Your task to perform on an android device: turn on improve location accuracy Image 0: 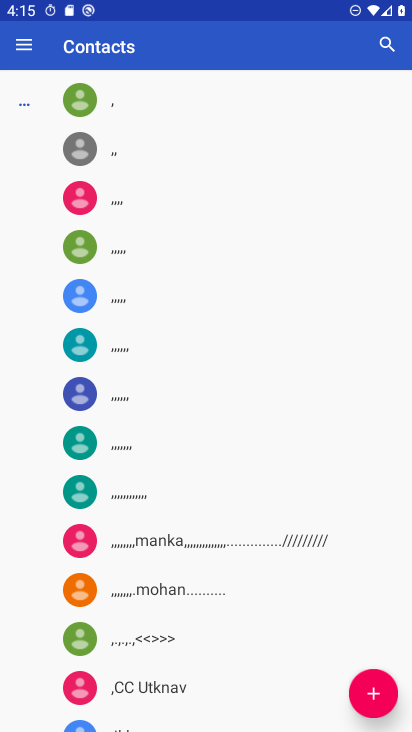
Step 0: press home button
Your task to perform on an android device: turn on improve location accuracy Image 1: 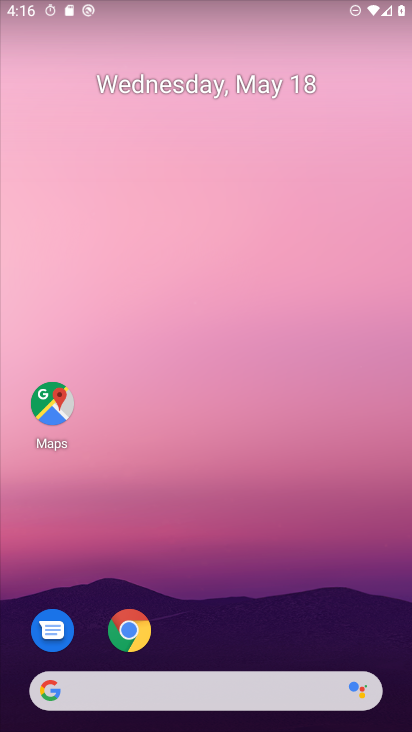
Step 1: drag from (221, 652) to (237, 60)
Your task to perform on an android device: turn on improve location accuracy Image 2: 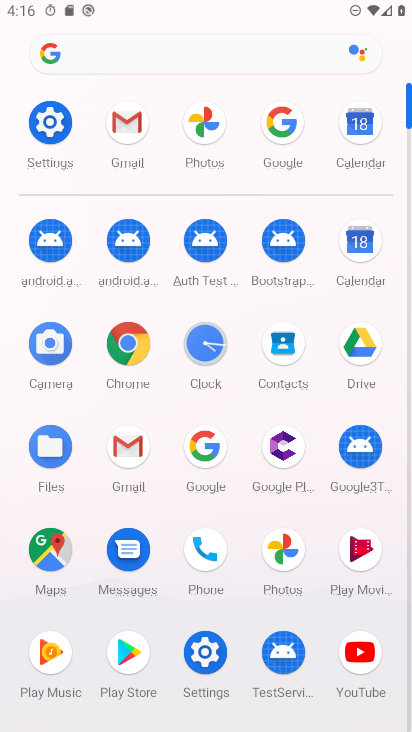
Step 2: click (201, 644)
Your task to perform on an android device: turn on improve location accuracy Image 3: 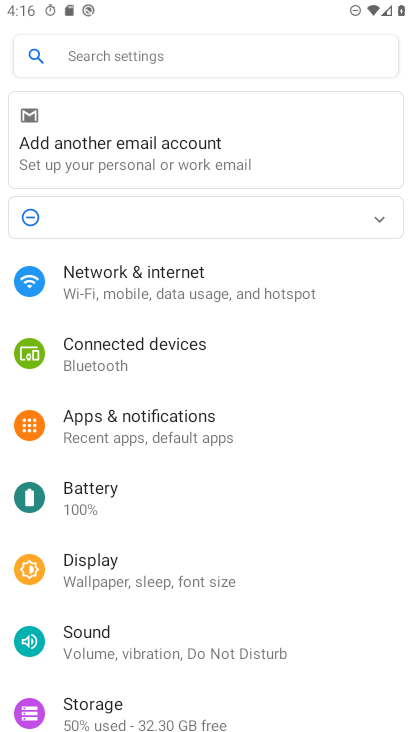
Step 3: drag from (160, 698) to (171, 245)
Your task to perform on an android device: turn on improve location accuracy Image 4: 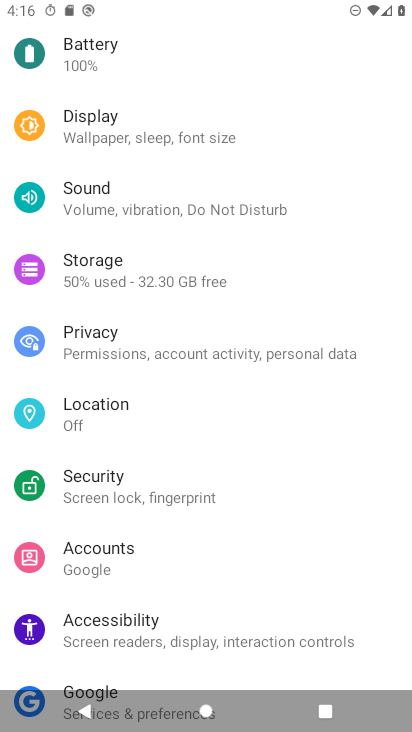
Step 4: click (125, 409)
Your task to perform on an android device: turn on improve location accuracy Image 5: 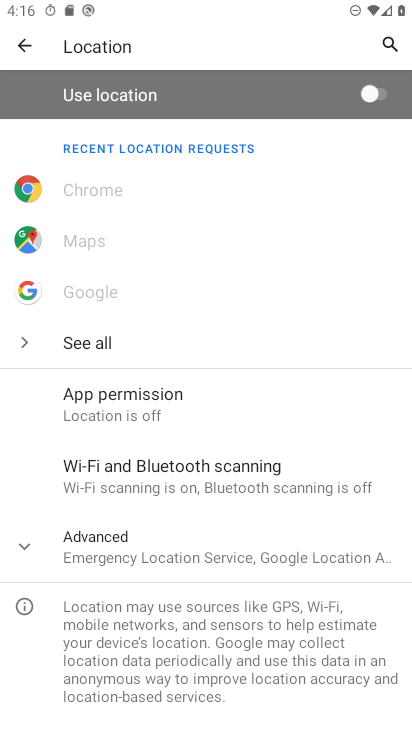
Step 5: click (25, 537)
Your task to perform on an android device: turn on improve location accuracy Image 6: 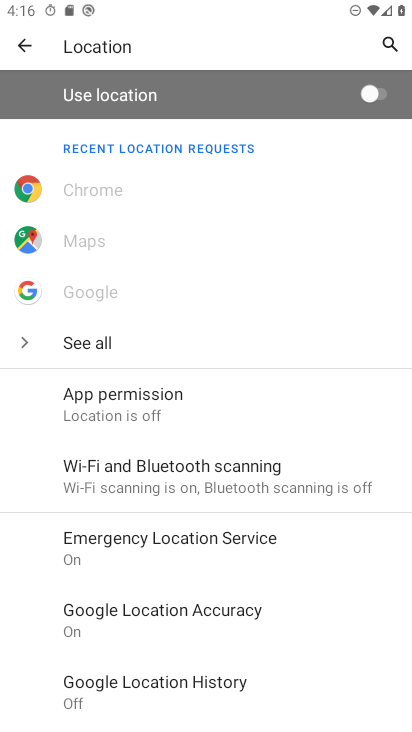
Step 6: click (139, 618)
Your task to perform on an android device: turn on improve location accuracy Image 7: 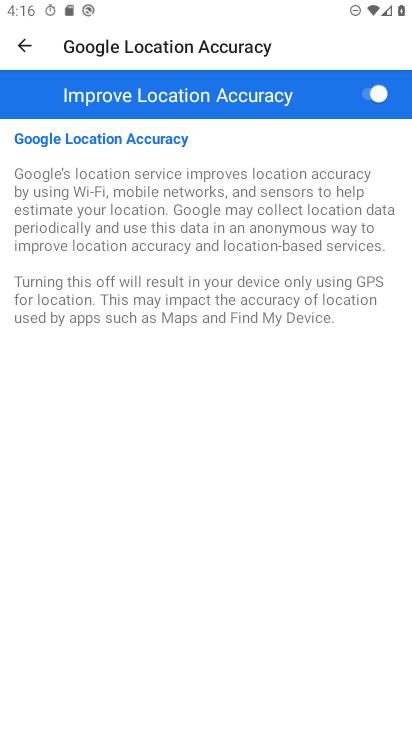
Step 7: task complete